Your task to perform on an android device: change notifications settings Image 0: 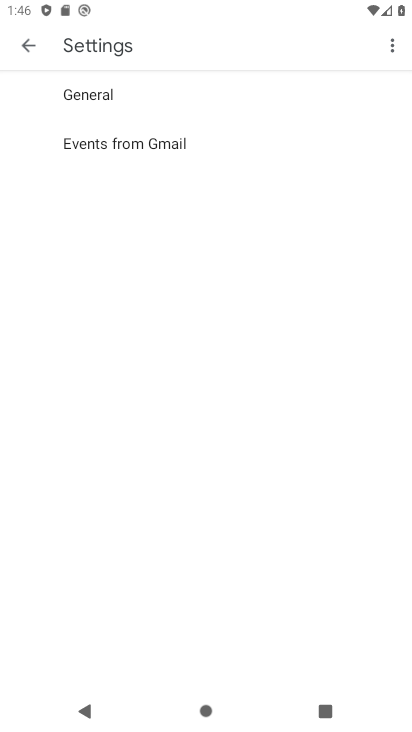
Step 0: press home button
Your task to perform on an android device: change notifications settings Image 1: 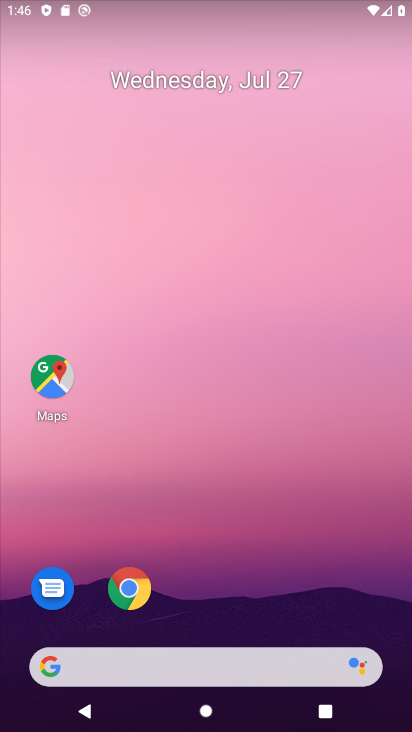
Step 1: click (216, 124)
Your task to perform on an android device: change notifications settings Image 2: 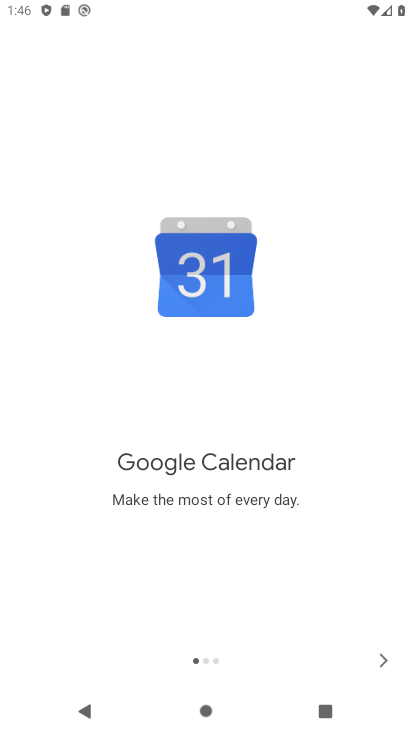
Step 2: press home button
Your task to perform on an android device: change notifications settings Image 3: 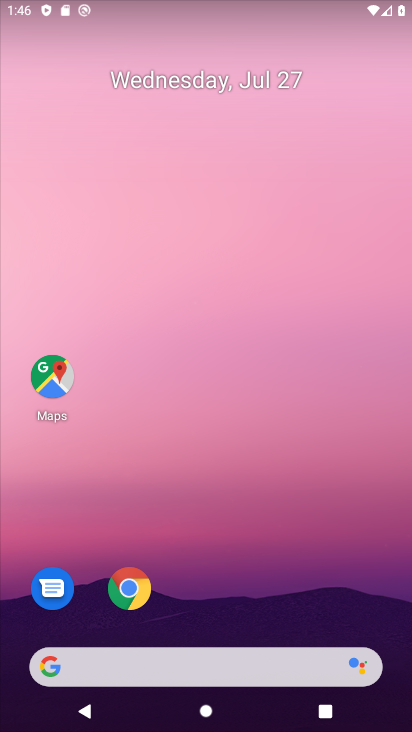
Step 3: drag from (274, 549) to (235, 73)
Your task to perform on an android device: change notifications settings Image 4: 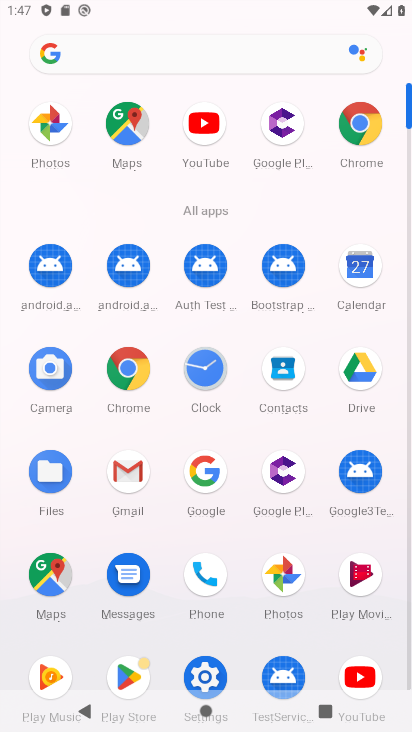
Step 4: click (200, 655)
Your task to perform on an android device: change notifications settings Image 5: 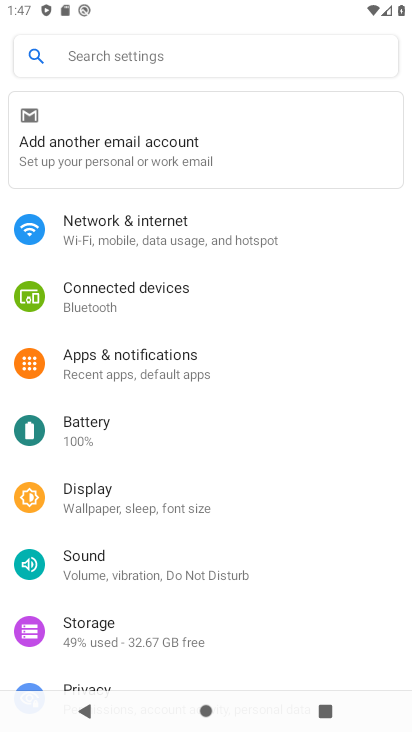
Step 5: click (266, 356)
Your task to perform on an android device: change notifications settings Image 6: 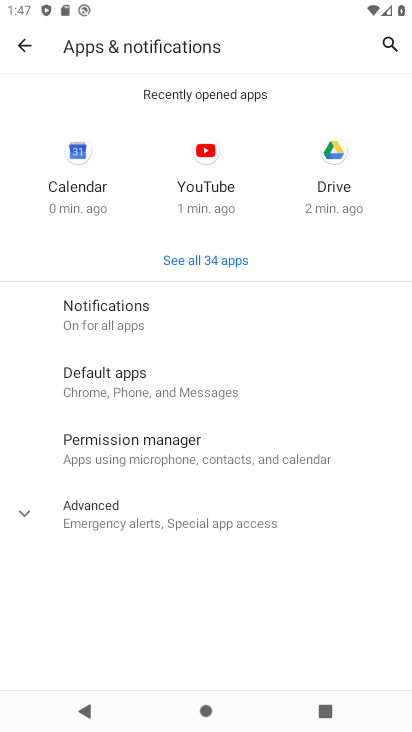
Step 6: click (169, 305)
Your task to perform on an android device: change notifications settings Image 7: 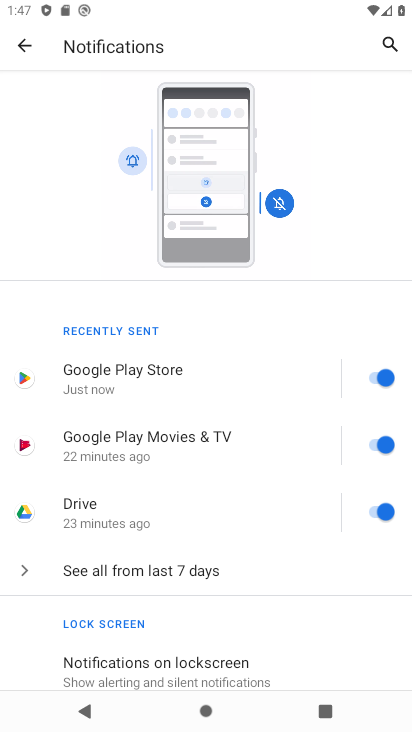
Step 7: drag from (201, 647) to (245, 365)
Your task to perform on an android device: change notifications settings Image 8: 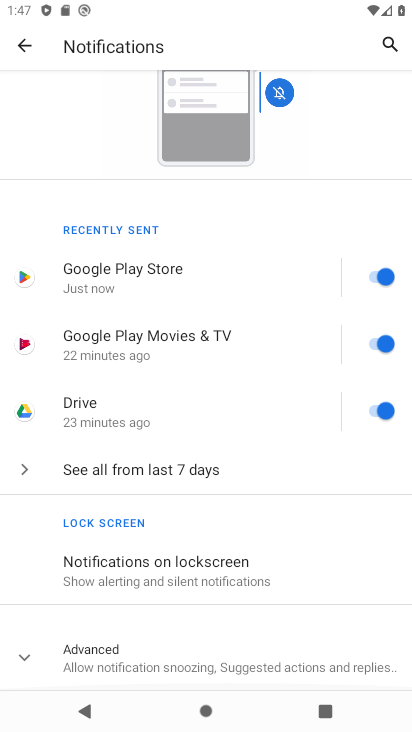
Step 8: click (233, 556)
Your task to perform on an android device: change notifications settings Image 9: 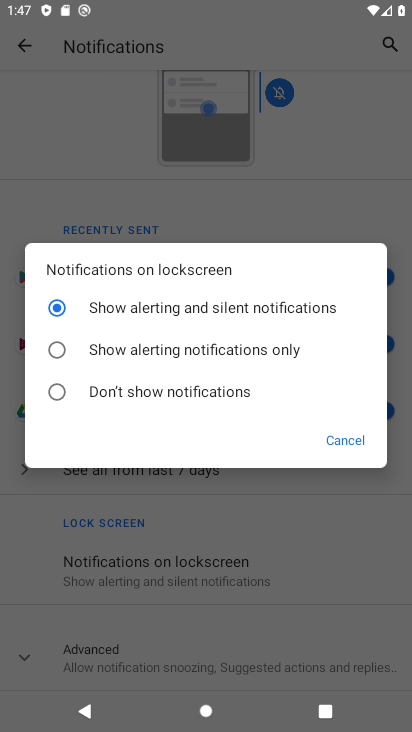
Step 9: click (208, 383)
Your task to perform on an android device: change notifications settings Image 10: 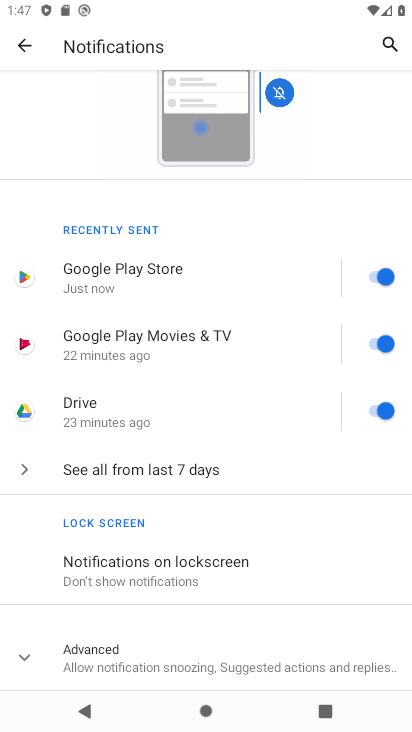
Step 10: task complete